Your task to perform on an android device: Go to Yahoo.com Image 0: 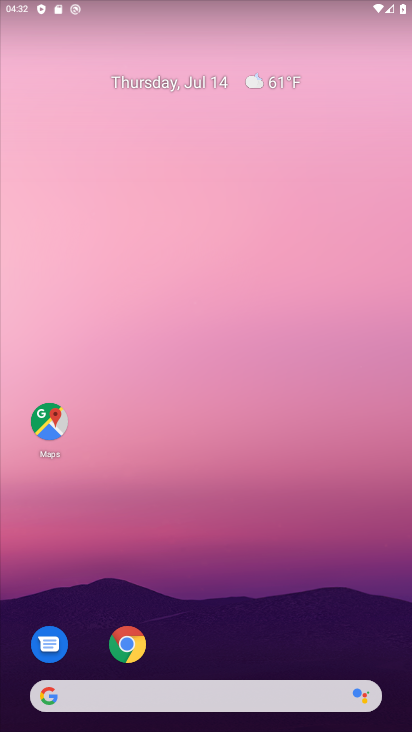
Step 0: press home button
Your task to perform on an android device: Go to Yahoo.com Image 1: 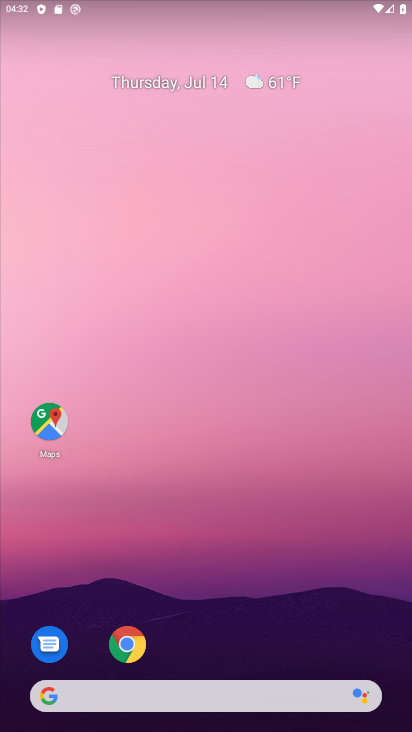
Step 1: press home button
Your task to perform on an android device: Go to Yahoo.com Image 2: 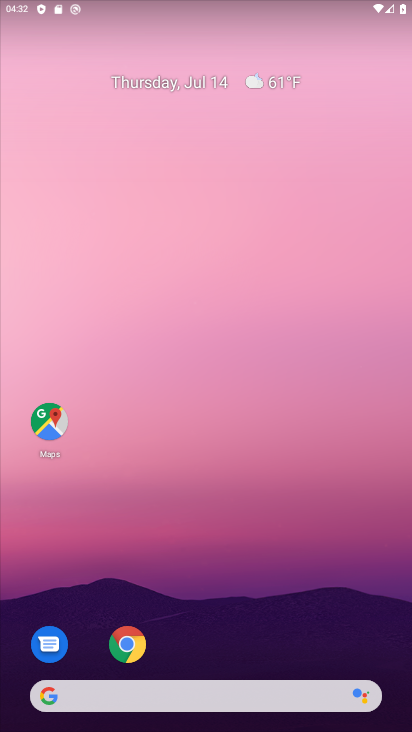
Step 2: press home button
Your task to perform on an android device: Go to Yahoo.com Image 3: 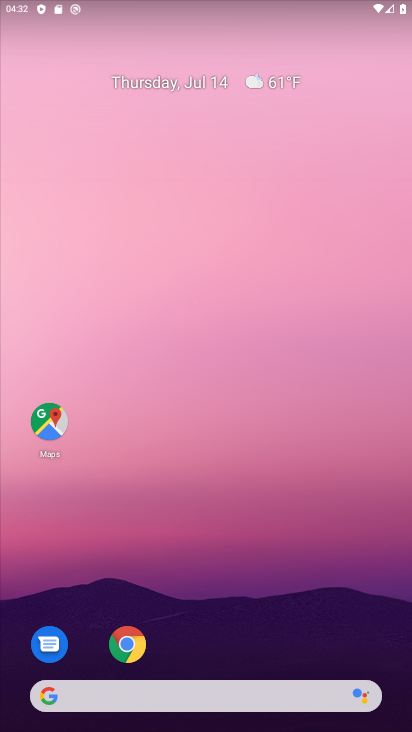
Step 3: click (111, 634)
Your task to perform on an android device: Go to Yahoo.com Image 4: 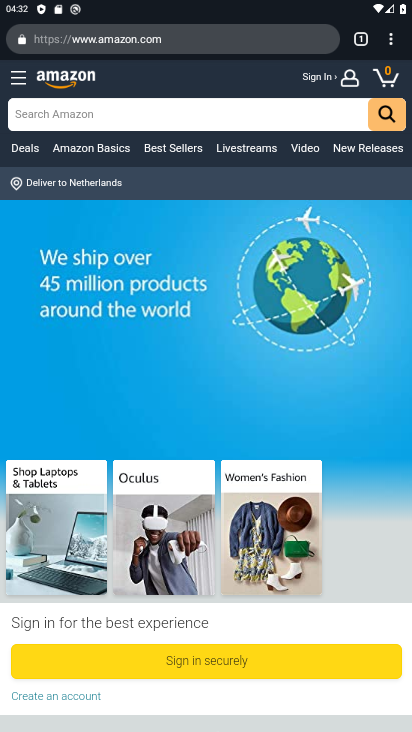
Step 4: click (260, 35)
Your task to perform on an android device: Go to Yahoo.com Image 5: 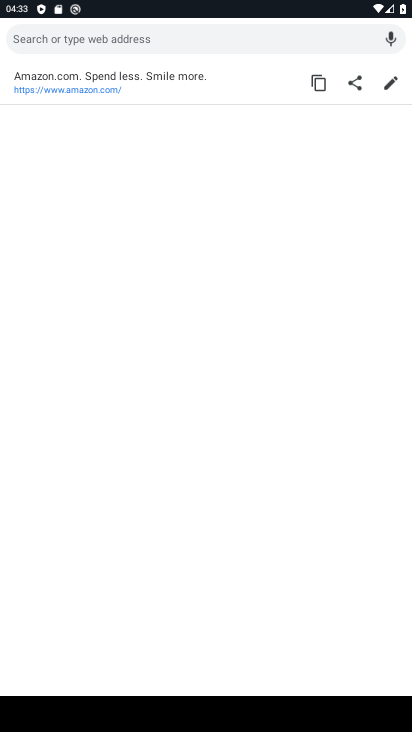
Step 5: type "Yahoo.com"
Your task to perform on an android device: Go to Yahoo.com Image 6: 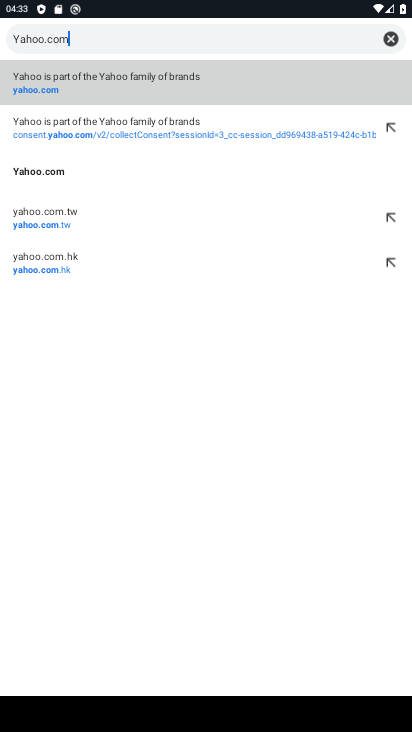
Step 6: type ""
Your task to perform on an android device: Go to Yahoo.com Image 7: 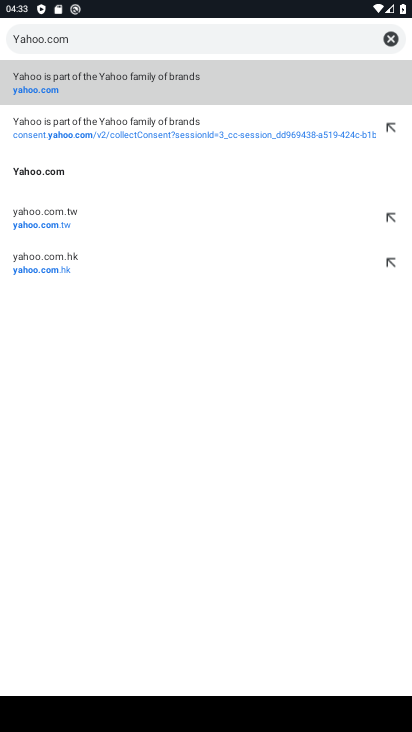
Step 7: click (81, 95)
Your task to perform on an android device: Go to Yahoo.com Image 8: 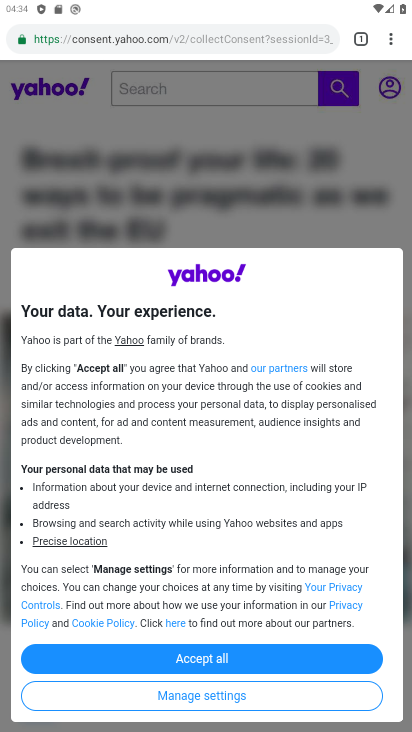
Step 8: task complete